Your task to perform on an android device: uninstall "Booking.com: Hotels and more" Image 0: 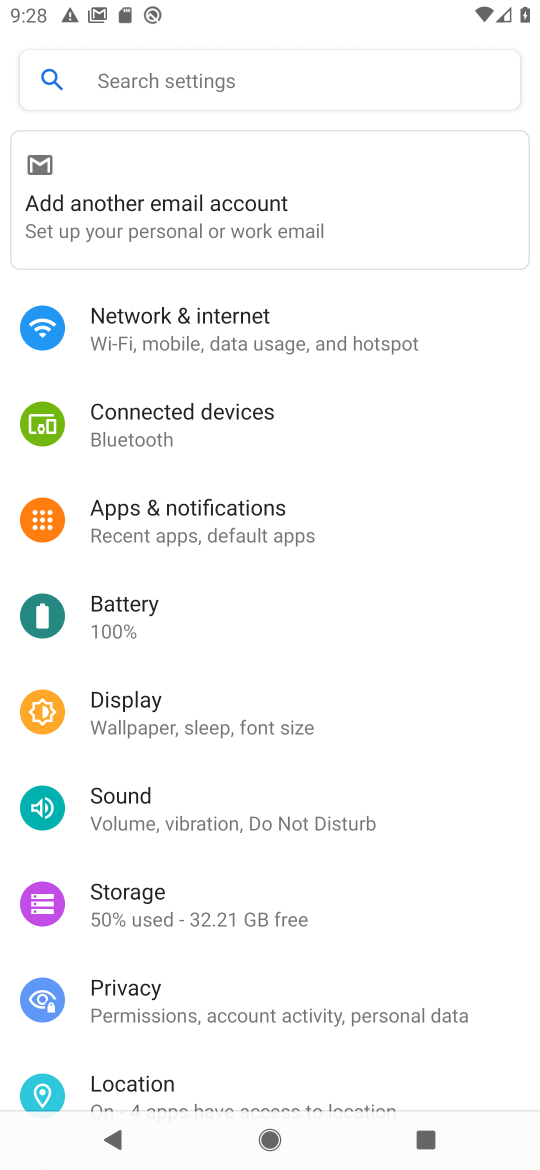
Step 0: press home button
Your task to perform on an android device: uninstall "Booking.com: Hotels and more" Image 1: 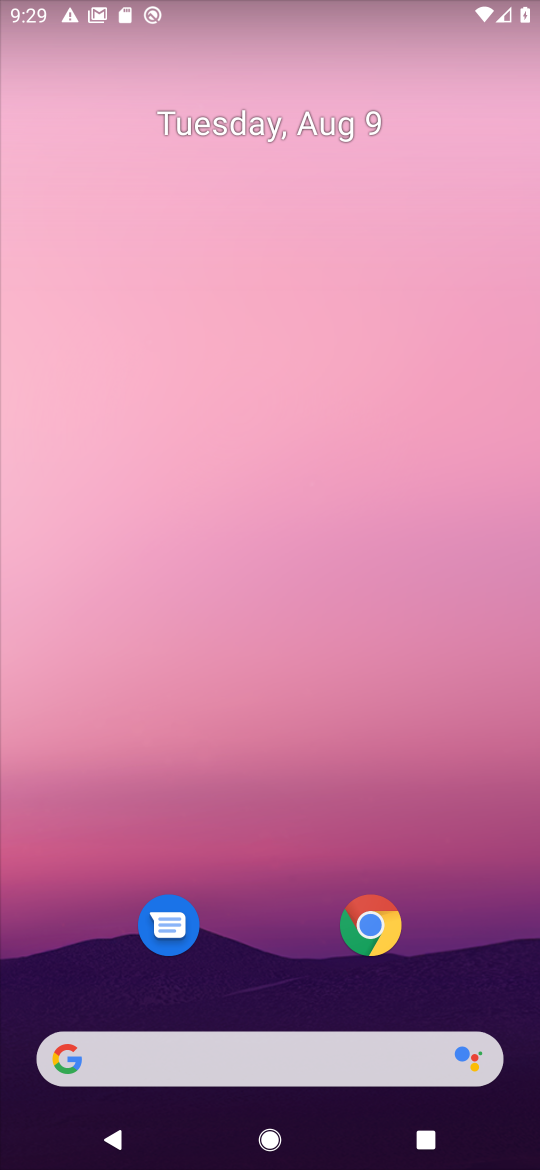
Step 1: drag from (254, 524) to (263, 350)
Your task to perform on an android device: uninstall "Booking.com: Hotels and more" Image 2: 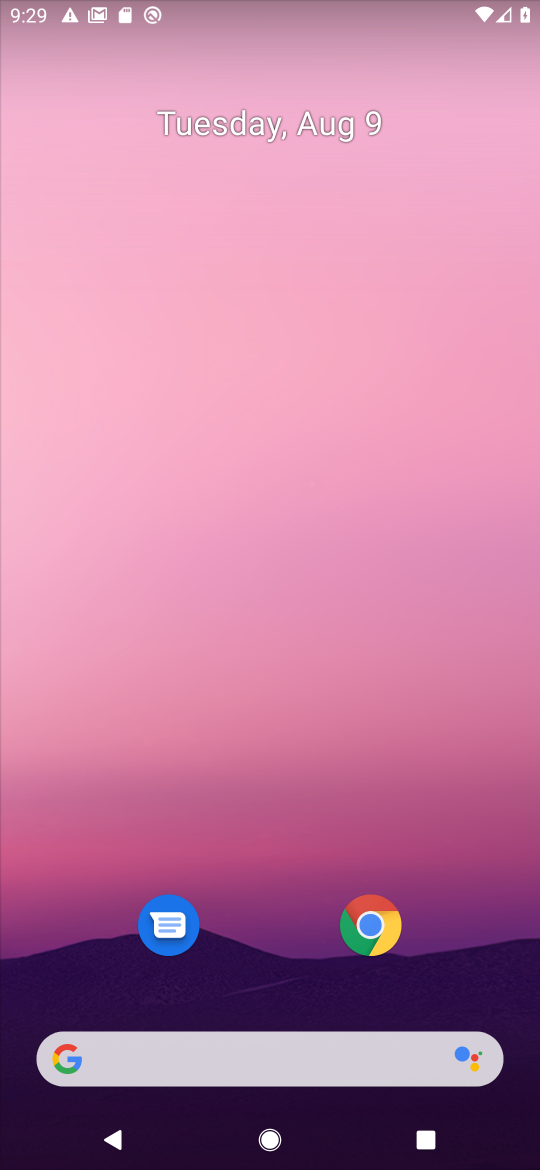
Step 2: drag from (251, 922) to (292, 42)
Your task to perform on an android device: uninstall "Booking.com: Hotels and more" Image 3: 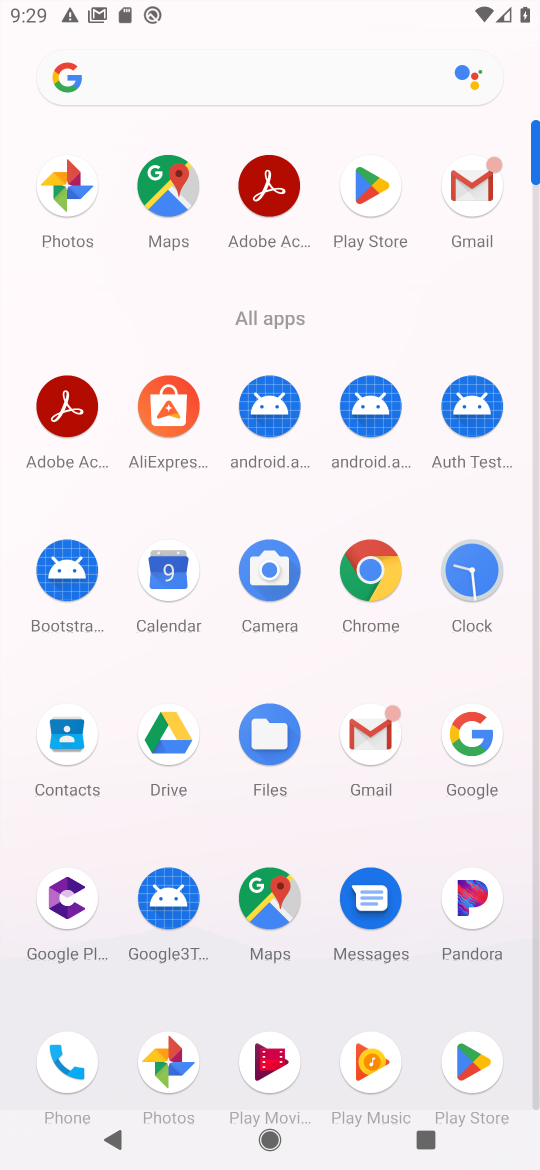
Step 3: click (362, 207)
Your task to perform on an android device: uninstall "Booking.com: Hotels and more" Image 4: 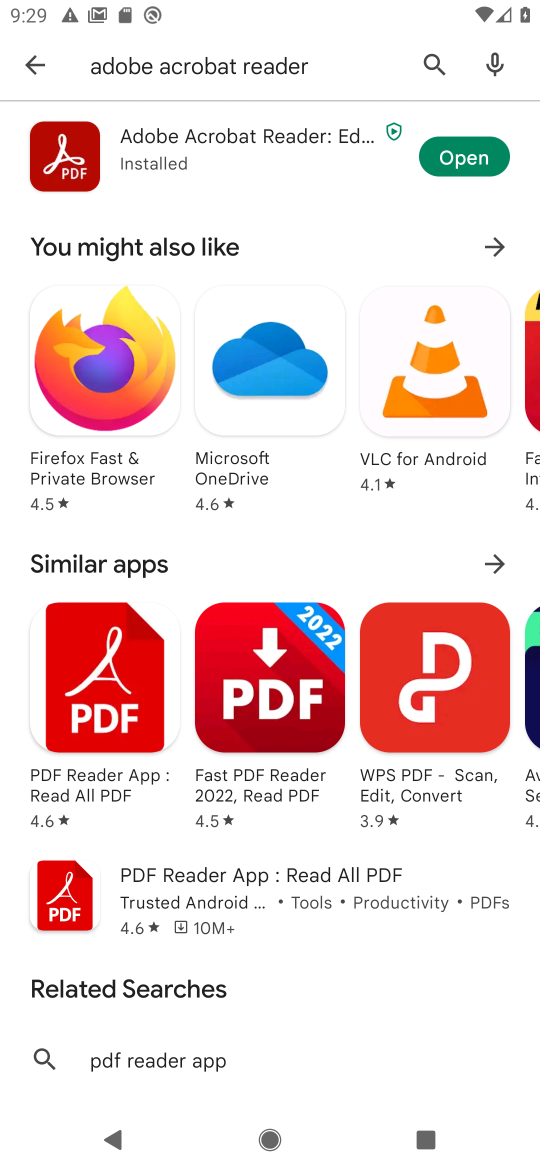
Step 4: click (38, 67)
Your task to perform on an android device: uninstall "Booking.com: Hotels and more" Image 5: 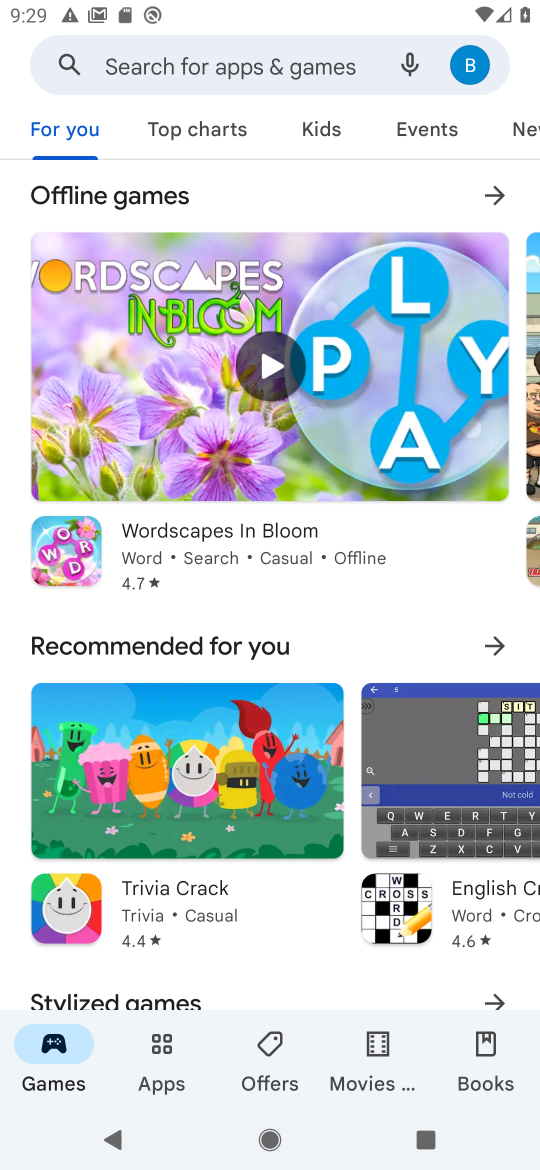
Step 5: click (163, 67)
Your task to perform on an android device: uninstall "Booking.com: Hotels and more" Image 6: 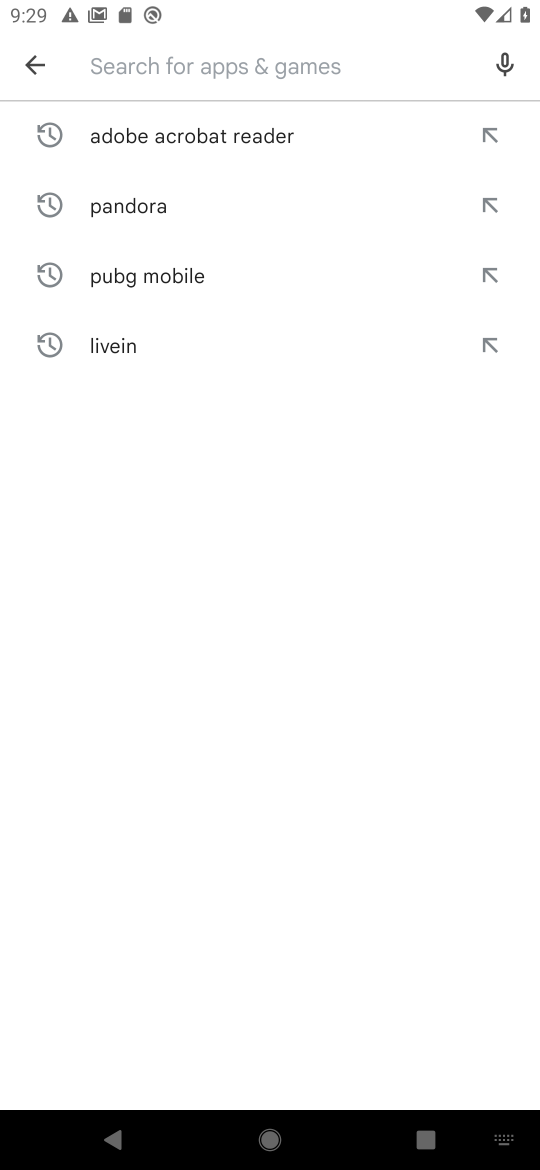
Step 6: type "Booking.com: Hotels and more"
Your task to perform on an android device: uninstall "Booking.com: Hotels and more" Image 7: 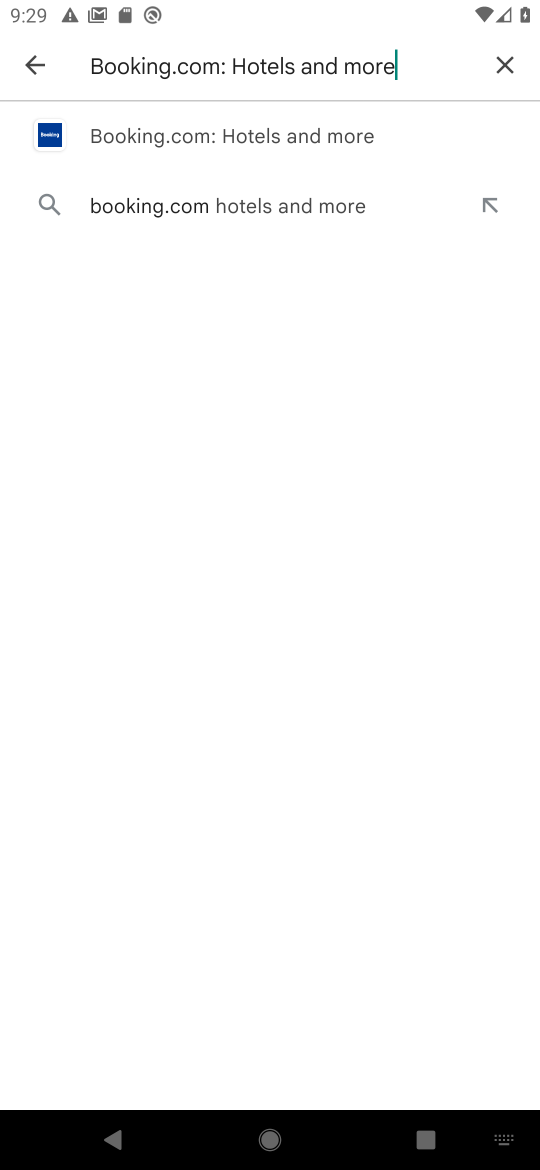
Step 7: type ""
Your task to perform on an android device: uninstall "Booking.com: Hotels and more" Image 8: 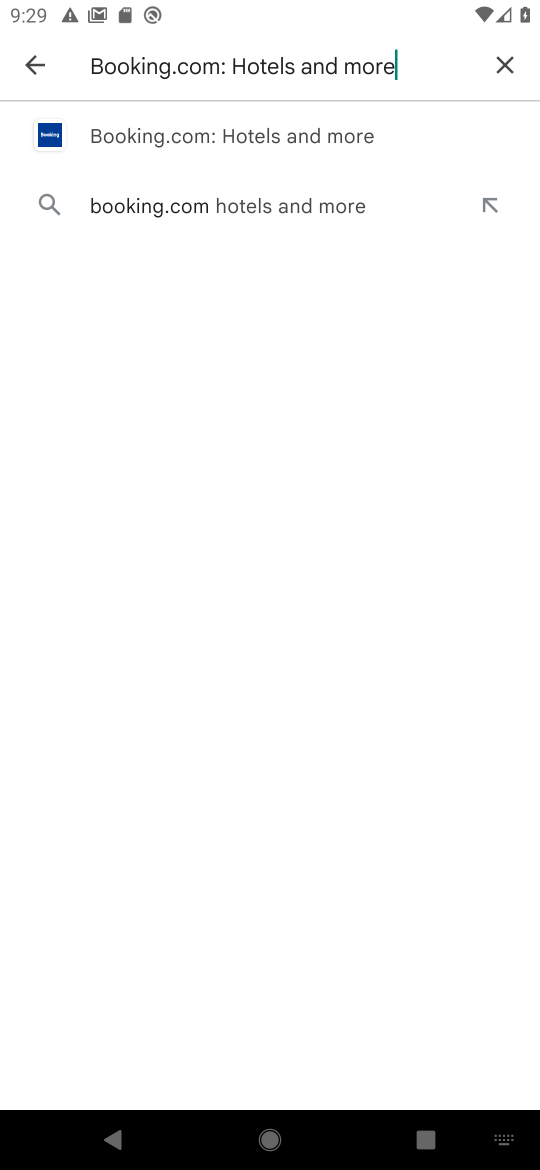
Step 8: click (310, 135)
Your task to perform on an android device: uninstall "Booking.com: Hotels and more" Image 9: 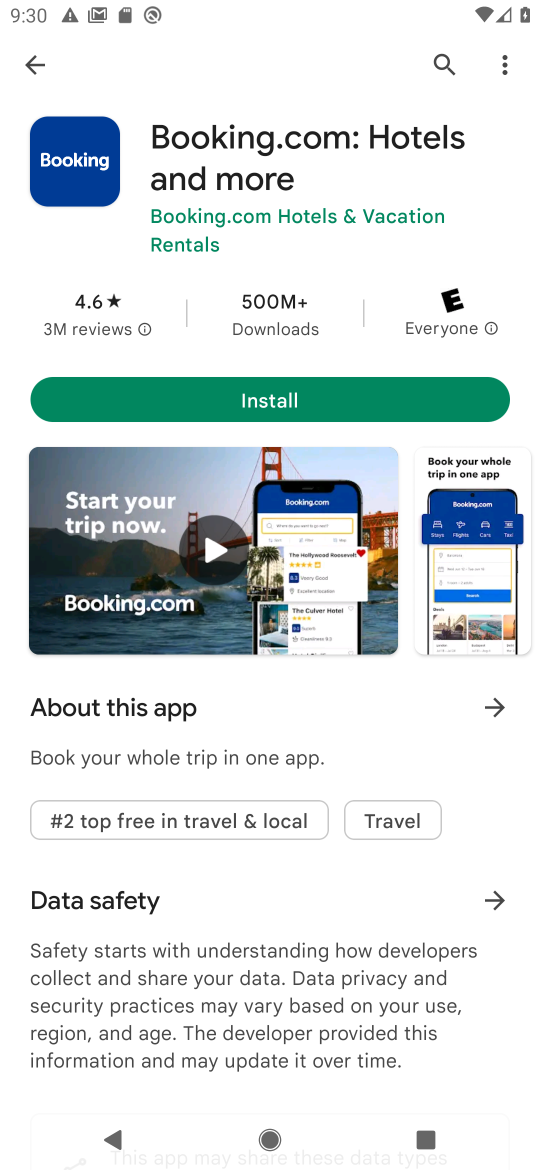
Step 9: task complete